Your task to perform on an android device: Open the map Image 0: 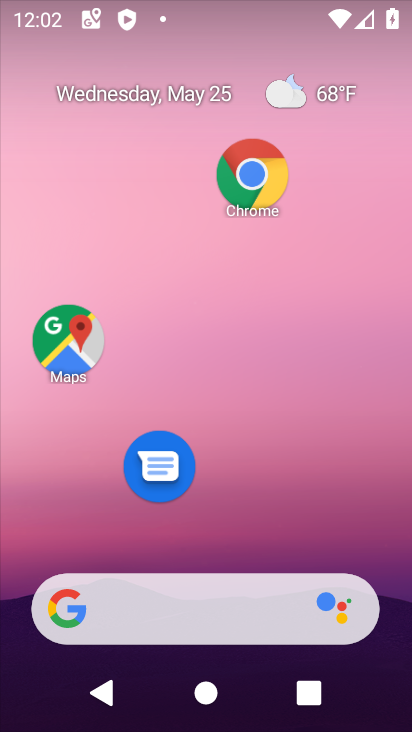
Step 0: click (83, 324)
Your task to perform on an android device: Open the map Image 1: 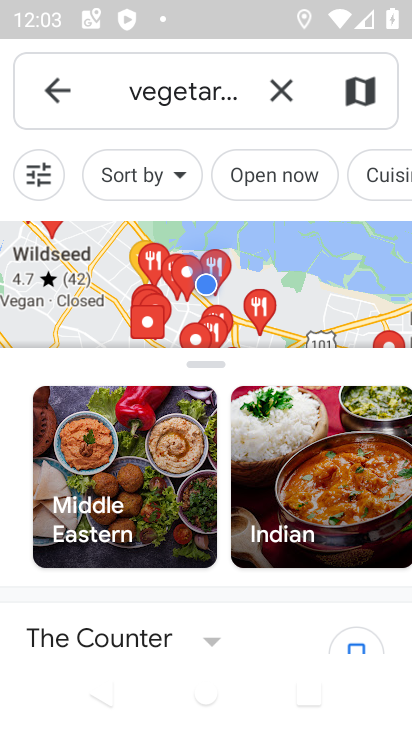
Step 1: click (278, 74)
Your task to perform on an android device: Open the map Image 2: 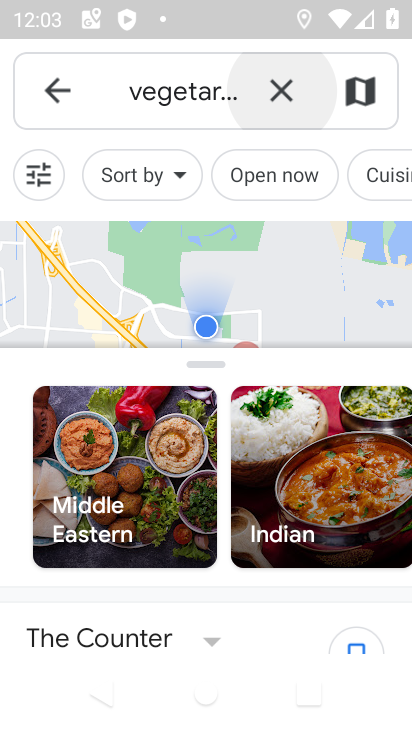
Step 2: click (281, 86)
Your task to perform on an android device: Open the map Image 3: 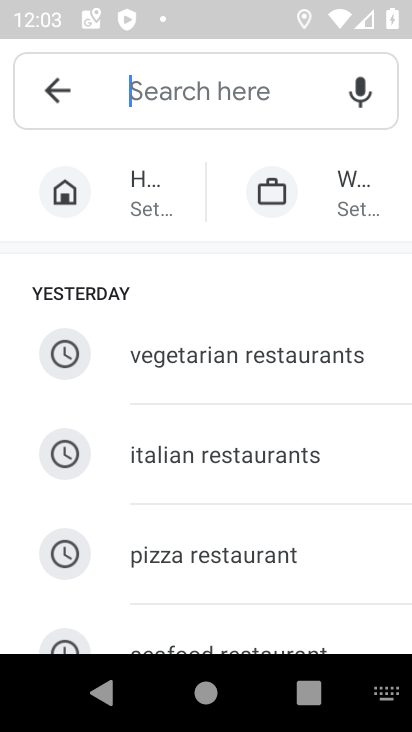
Step 3: task complete